Your task to perform on an android device: Show the shopping cart on costco.com. Search for "logitech g903" on costco.com, select the first entry, add it to the cart, then select checkout. Image 0: 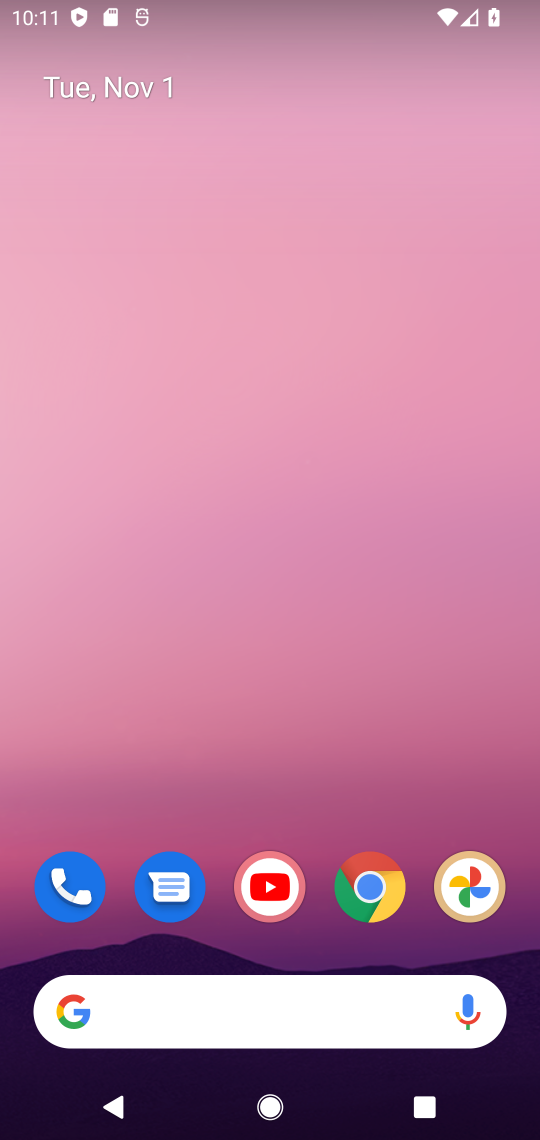
Step 0: click (383, 888)
Your task to perform on an android device: Show the shopping cart on costco.com. Search for "logitech g903" on costco.com, select the first entry, add it to the cart, then select checkout. Image 1: 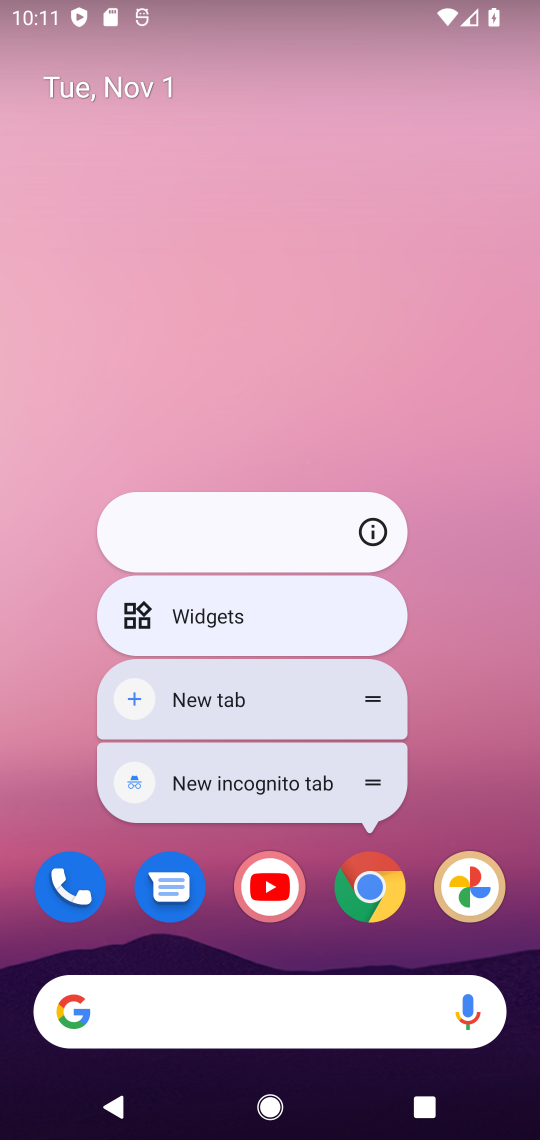
Step 1: click (383, 888)
Your task to perform on an android device: Show the shopping cart on costco.com. Search for "logitech g903" on costco.com, select the first entry, add it to the cart, then select checkout. Image 2: 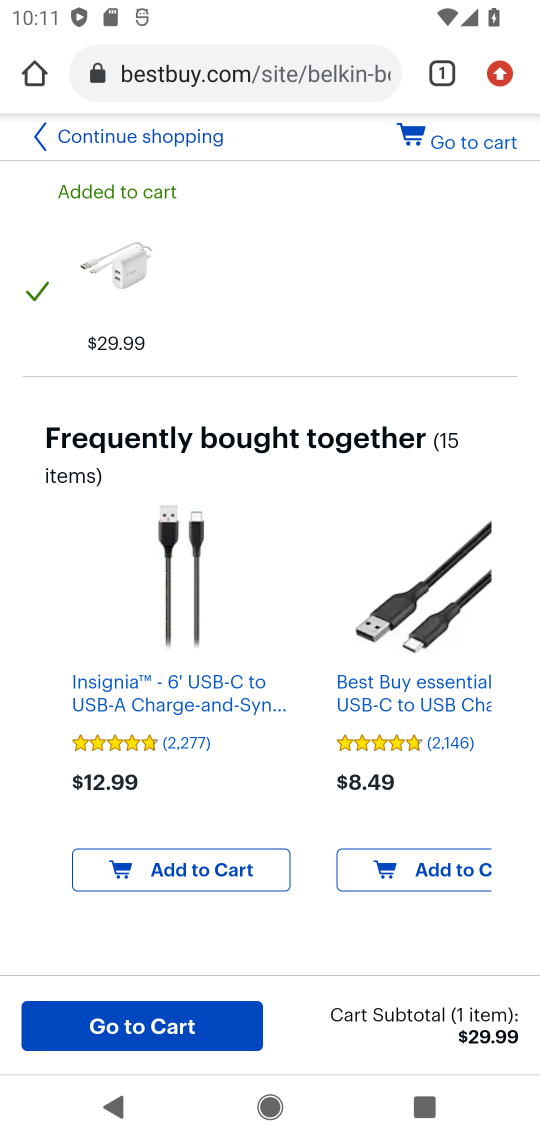
Step 2: click (255, 59)
Your task to perform on an android device: Show the shopping cart on costco.com. Search for "logitech g903" on costco.com, select the first entry, add it to the cart, then select checkout. Image 3: 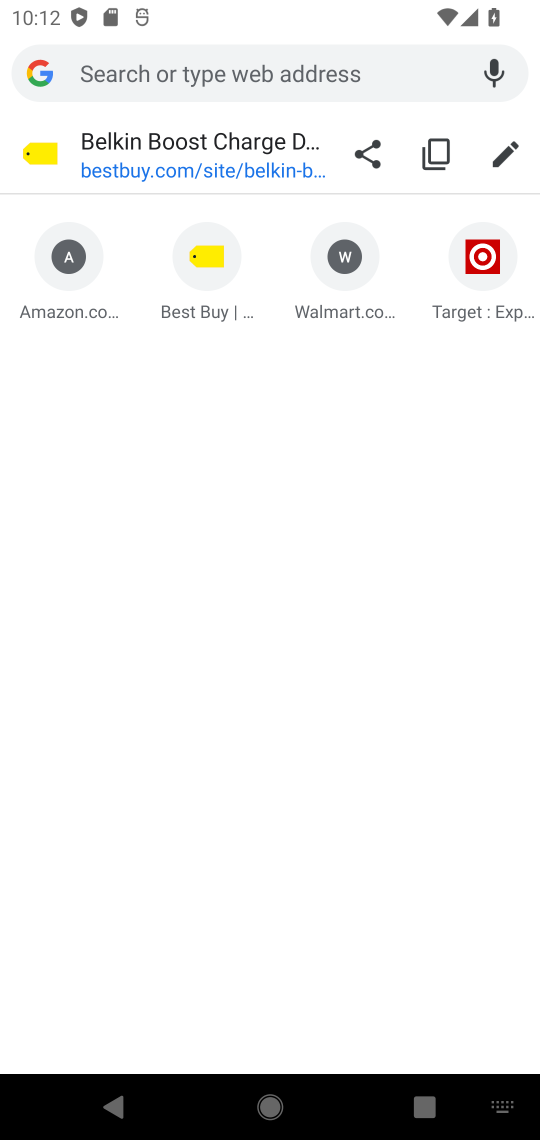
Step 3: type "costco.com"
Your task to perform on an android device: Show the shopping cart on costco.com. Search for "logitech g903" on costco.com, select the first entry, add it to the cart, then select checkout. Image 4: 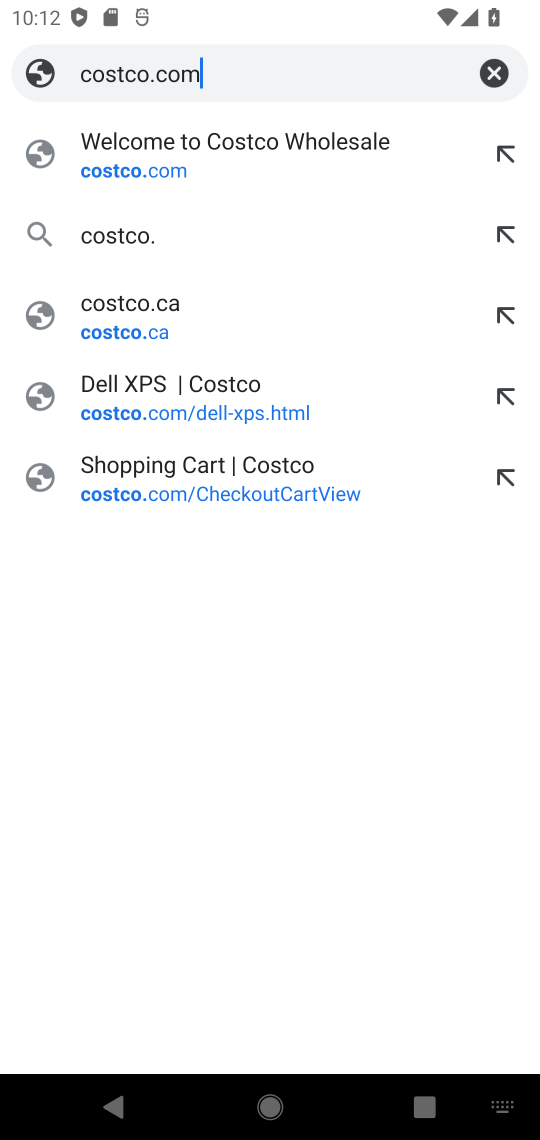
Step 4: press enter
Your task to perform on an android device: Show the shopping cart on costco.com. Search for "logitech g903" on costco.com, select the first entry, add it to the cart, then select checkout. Image 5: 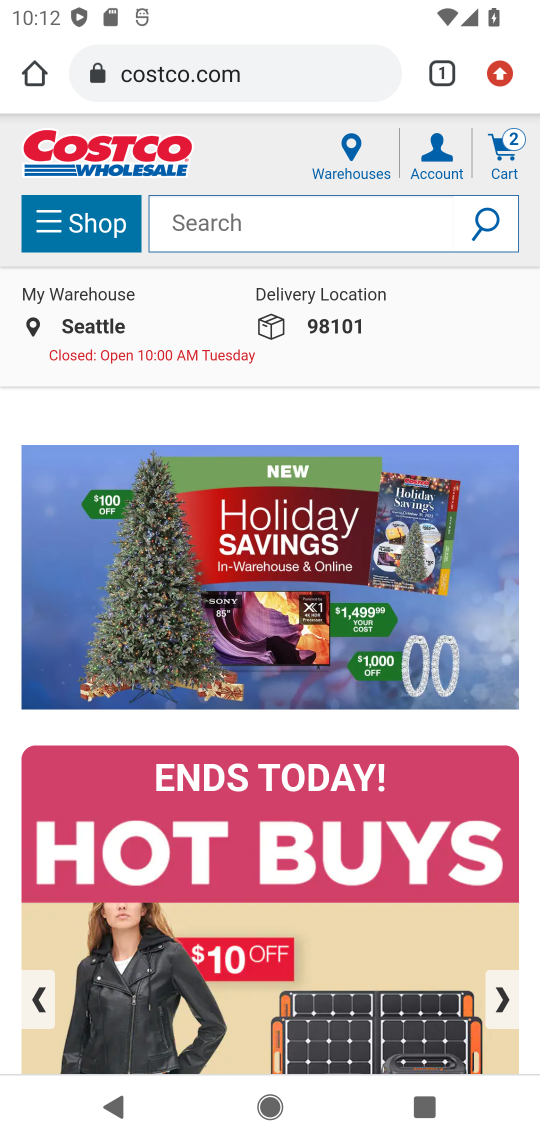
Step 5: click (508, 150)
Your task to perform on an android device: Show the shopping cart on costco.com. Search for "logitech g903" on costco.com, select the first entry, add it to the cart, then select checkout. Image 6: 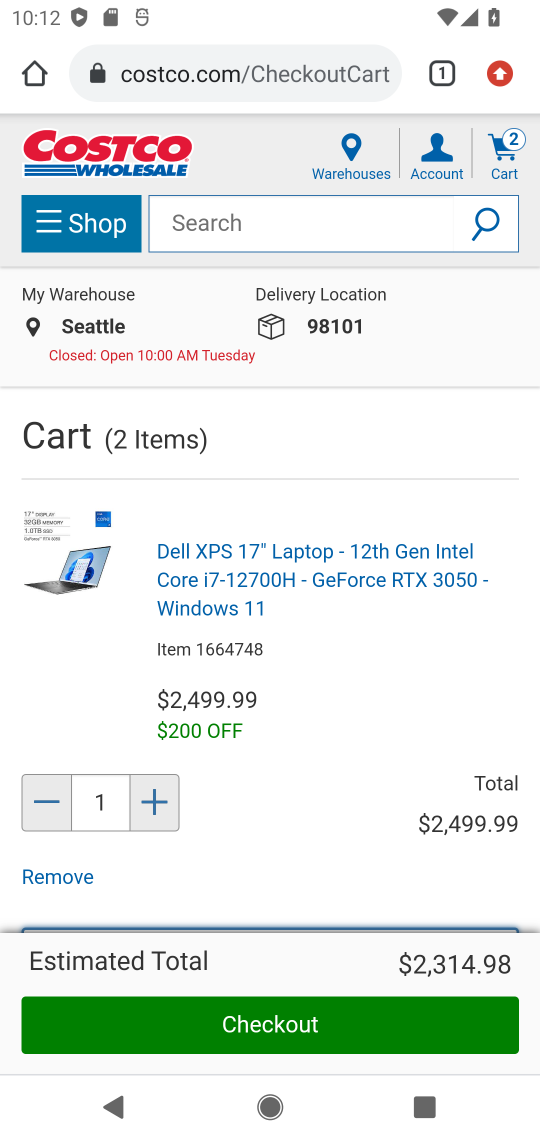
Step 6: click (405, 239)
Your task to perform on an android device: Show the shopping cart on costco.com. Search for "logitech g903" on costco.com, select the first entry, add it to the cart, then select checkout. Image 7: 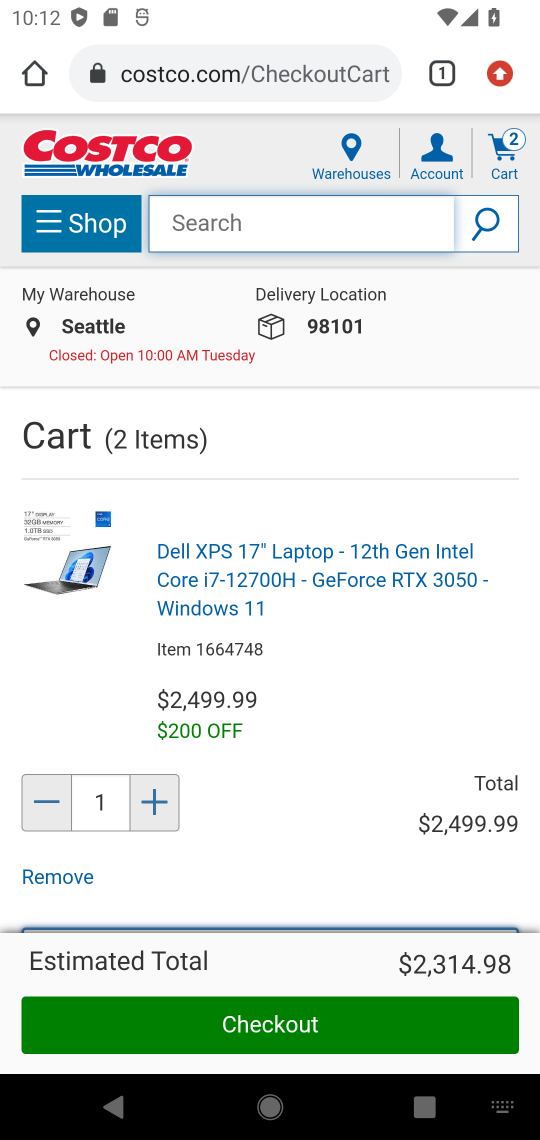
Step 7: type "logitech g903"
Your task to perform on an android device: Show the shopping cart on costco.com. Search for "logitech g903" on costco.com, select the first entry, add it to the cart, then select checkout. Image 8: 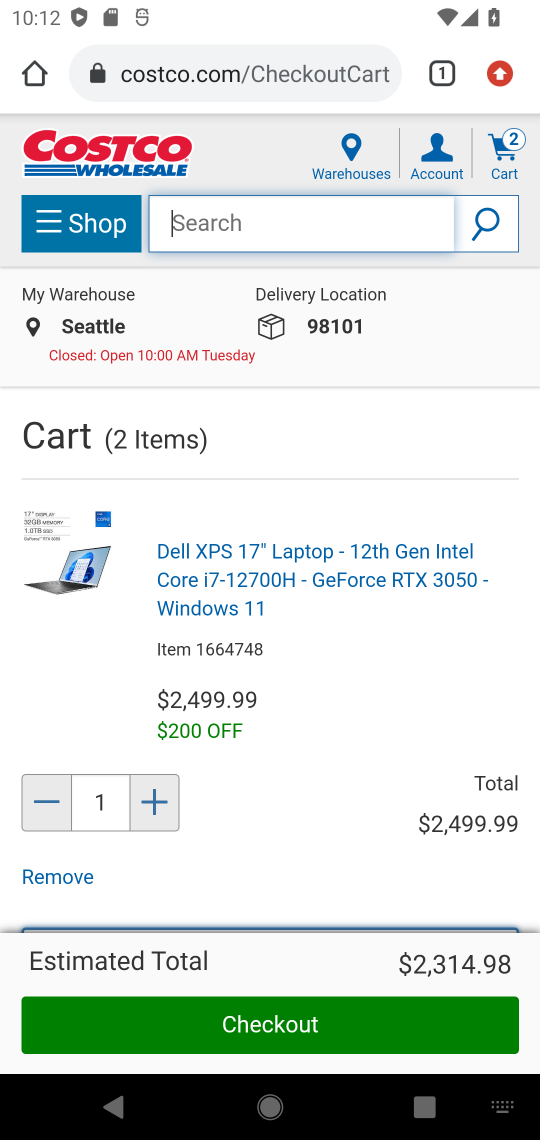
Step 8: press enter
Your task to perform on an android device: Show the shopping cart on costco.com. Search for "logitech g903" on costco.com, select the first entry, add it to the cart, then select checkout. Image 9: 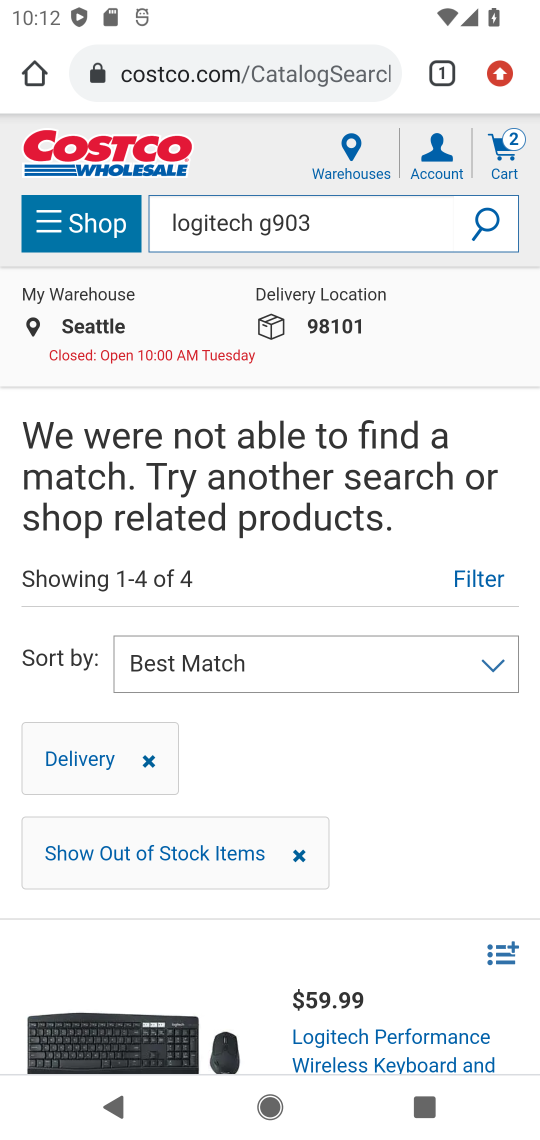
Step 9: drag from (360, 851) to (324, 559)
Your task to perform on an android device: Show the shopping cart on costco.com. Search for "logitech g903" on costco.com, select the first entry, add it to the cart, then select checkout. Image 10: 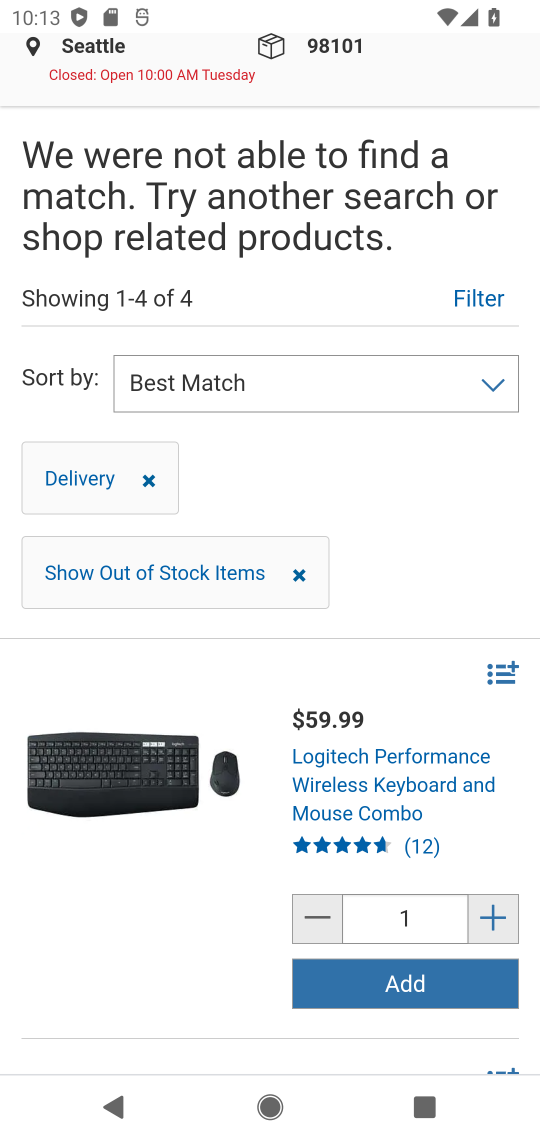
Step 10: drag from (383, 999) to (348, 607)
Your task to perform on an android device: Show the shopping cart on costco.com. Search for "logitech g903" on costco.com, select the first entry, add it to the cart, then select checkout. Image 11: 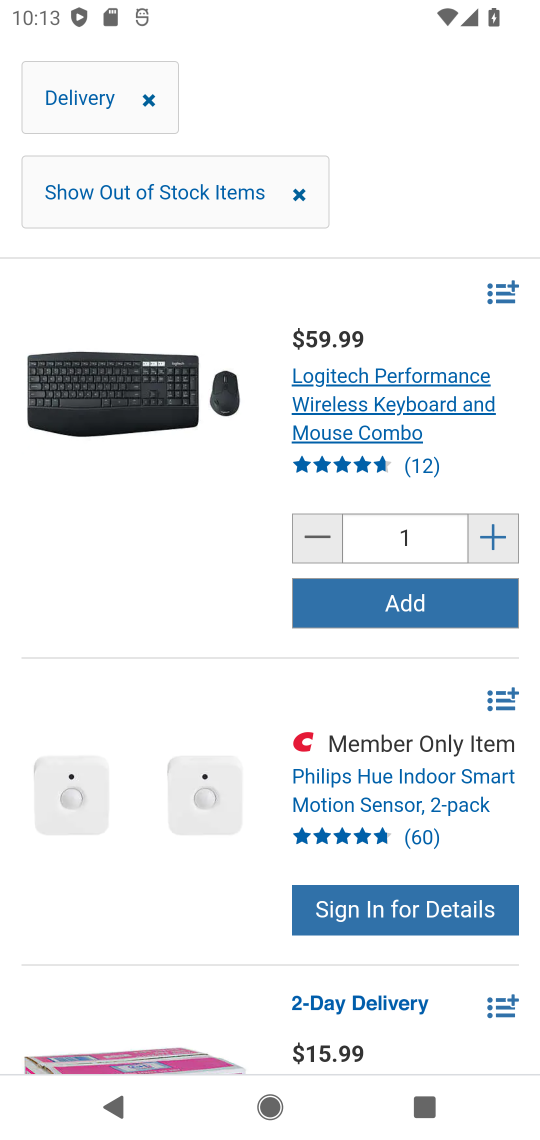
Step 11: drag from (395, 941) to (391, 562)
Your task to perform on an android device: Show the shopping cart on costco.com. Search for "logitech g903" on costco.com, select the first entry, add it to the cart, then select checkout. Image 12: 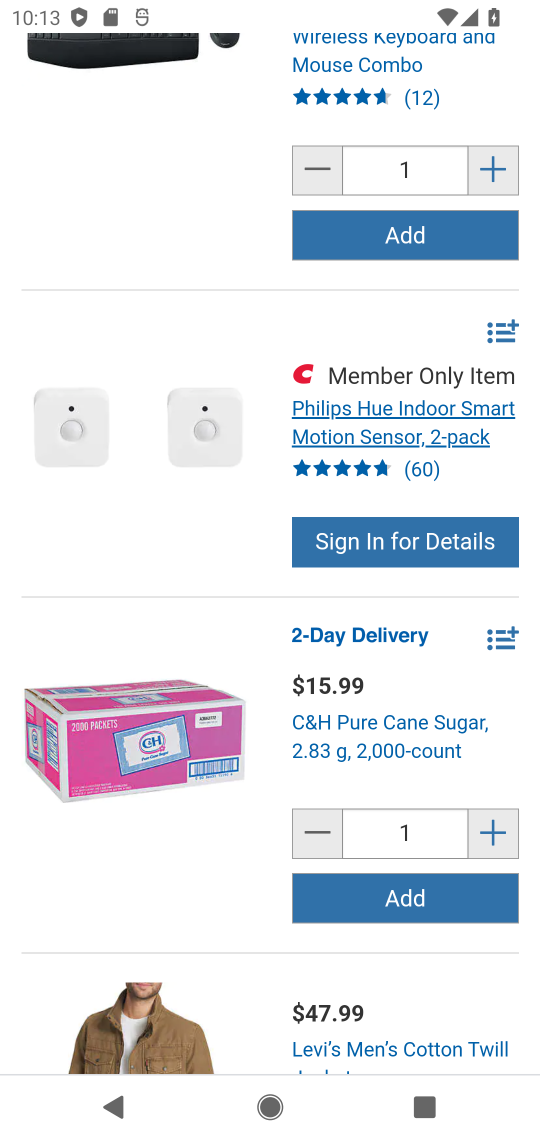
Step 12: drag from (275, 312) to (408, 911)
Your task to perform on an android device: Show the shopping cart on costco.com. Search for "logitech g903" on costco.com, select the first entry, add it to the cart, then select checkout. Image 13: 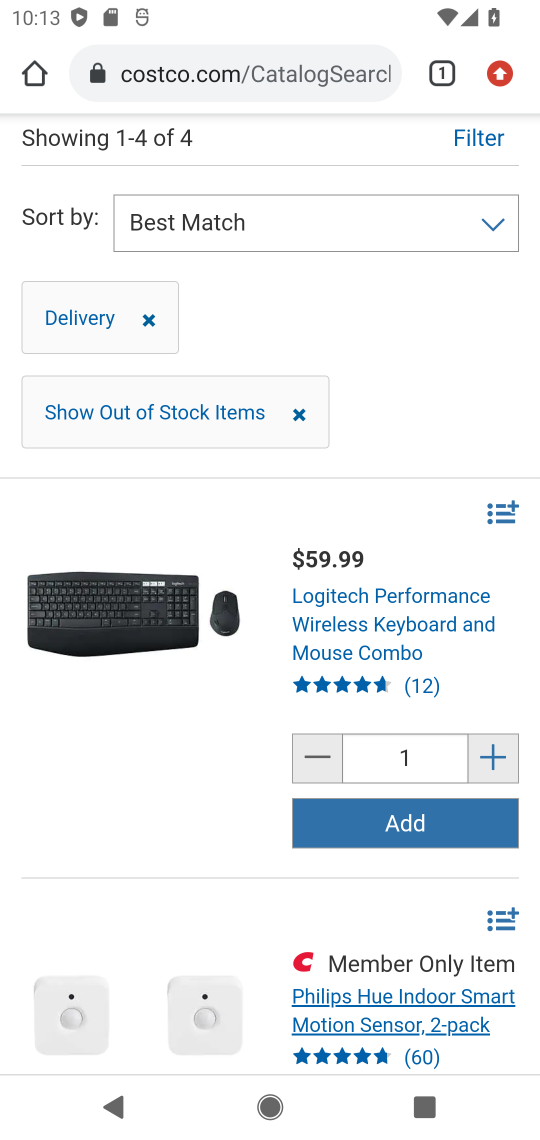
Step 13: click (154, 695)
Your task to perform on an android device: Show the shopping cart on costco.com. Search for "logitech g903" on costco.com, select the first entry, add it to the cart, then select checkout. Image 14: 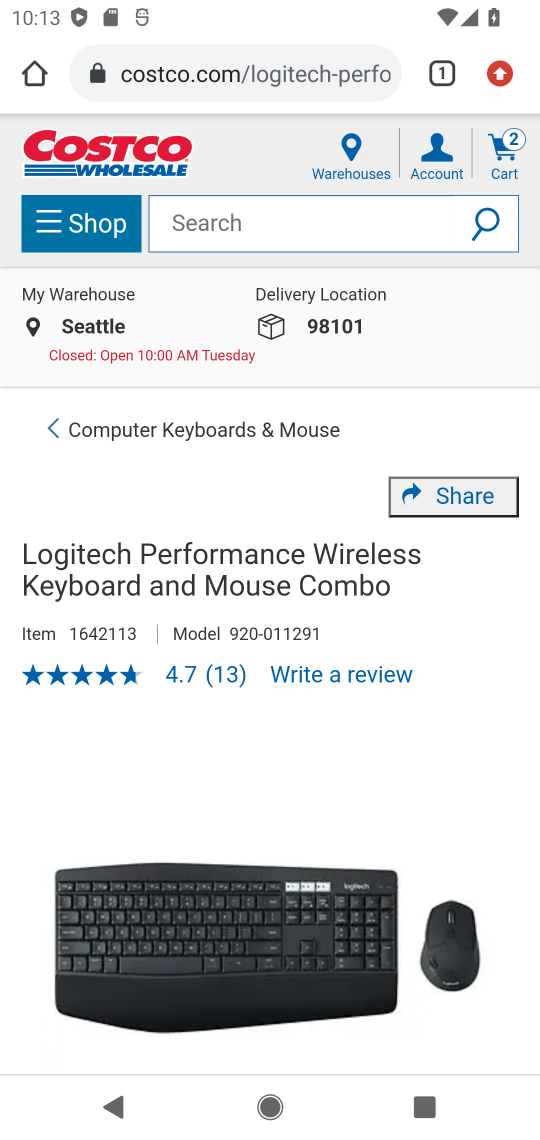
Step 14: drag from (197, 777) to (145, 274)
Your task to perform on an android device: Show the shopping cart on costco.com. Search for "logitech g903" on costco.com, select the first entry, add it to the cart, then select checkout. Image 15: 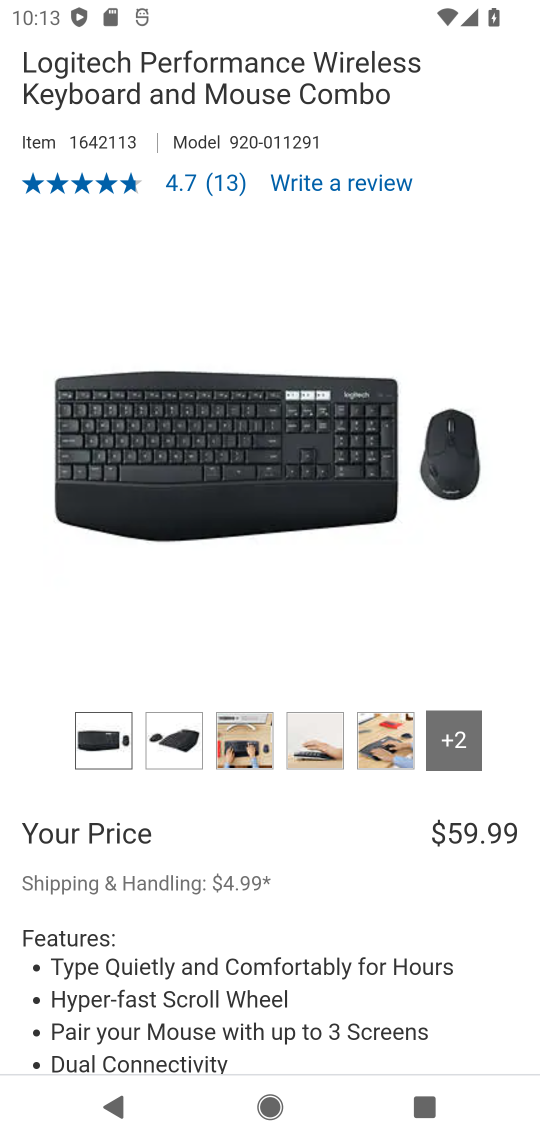
Step 15: drag from (232, 910) to (202, 365)
Your task to perform on an android device: Show the shopping cart on costco.com. Search for "logitech g903" on costco.com, select the first entry, add it to the cart, then select checkout. Image 16: 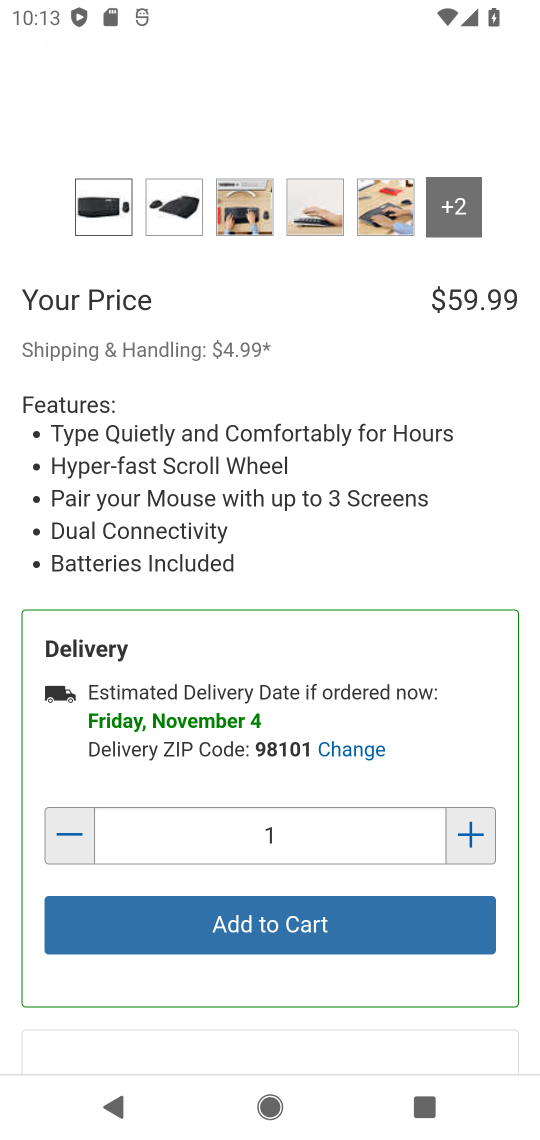
Step 16: click (272, 929)
Your task to perform on an android device: Show the shopping cart on costco.com. Search for "logitech g903" on costco.com, select the first entry, add it to the cart, then select checkout. Image 17: 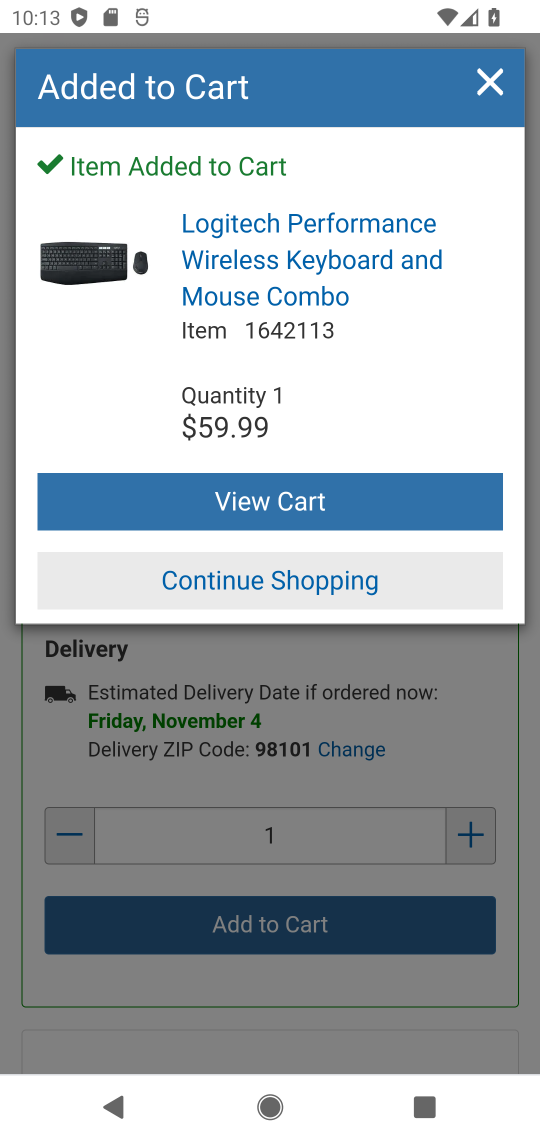
Step 17: click (381, 495)
Your task to perform on an android device: Show the shopping cart on costco.com. Search for "logitech g903" on costco.com, select the first entry, add it to the cart, then select checkout. Image 18: 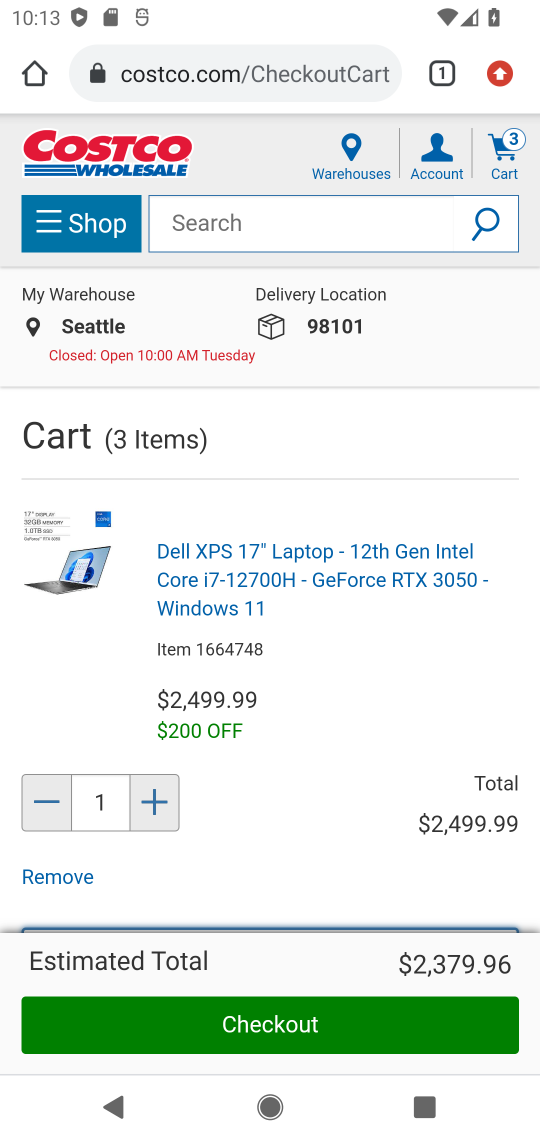
Step 18: click (276, 1015)
Your task to perform on an android device: Show the shopping cart on costco.com. Search for "logitech g903" on costco.com, select the first entry, add it to the cart, then select checkout. Image 19: 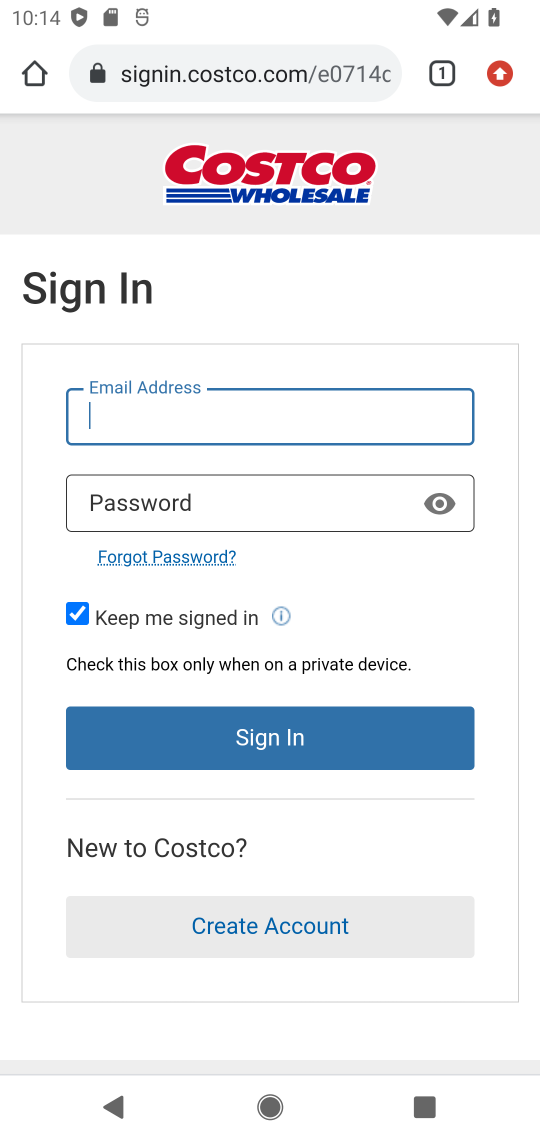
Step 19: task complete